Your task to perform on an android device: change notification settings in the gmail app Image 0: 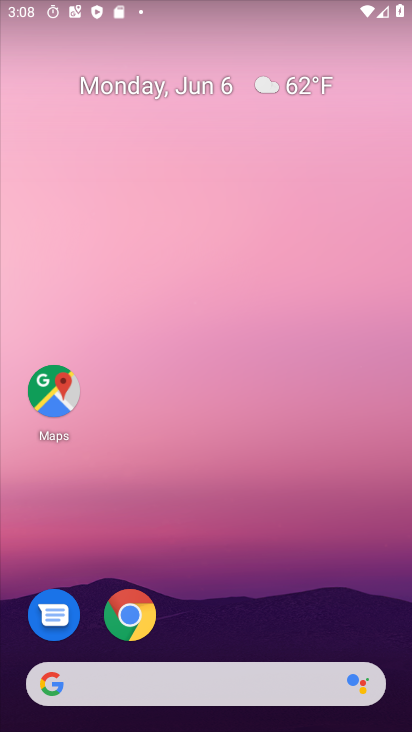
Step 0: drag from (255, 627) to (365, 114)
Your task to perform on an android device: change notification settings in the gmail app Image 1: 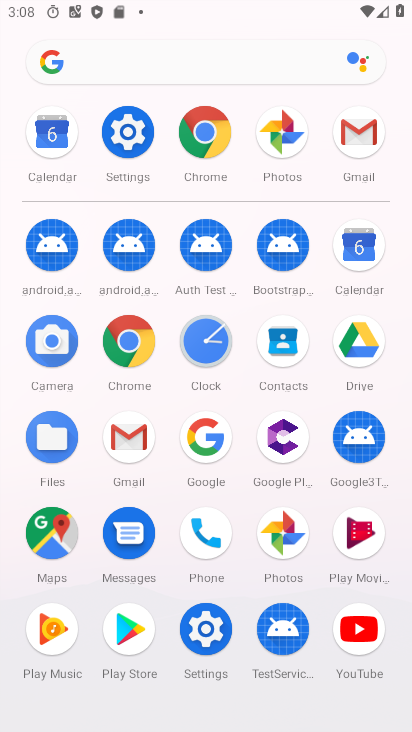
Step 1: click (134, 425)
Your task to perform on an android device: change notification settings in the gmail app Image 2: 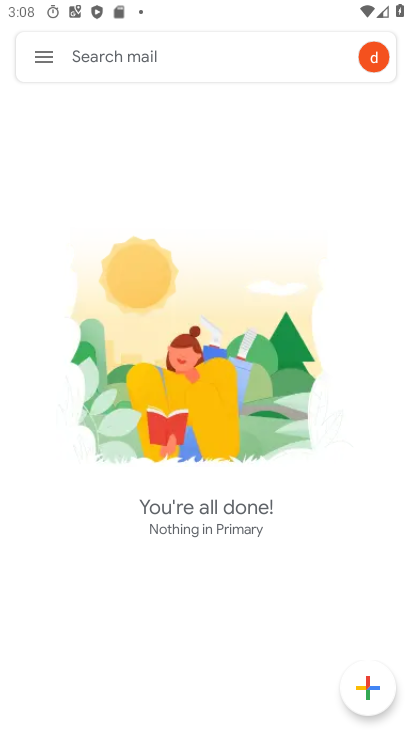
Step 2: click (56, 50)
Your task to perform on an android device: change notification settings in the gmail app Image 3: 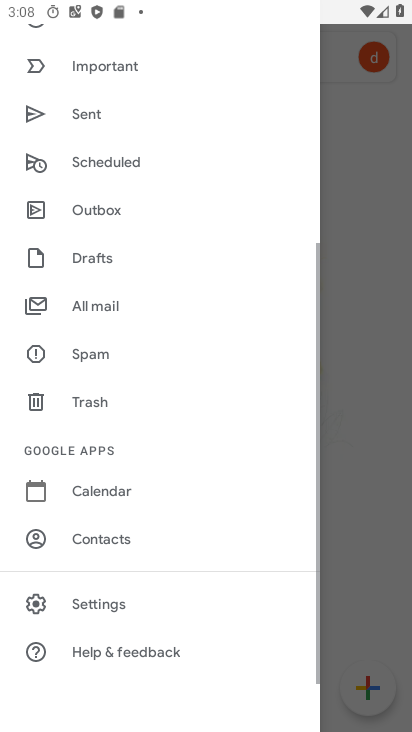
Step 3: click (142, 603)
Your task to perform on an android device: change notification settings in the gmail app Image 4: 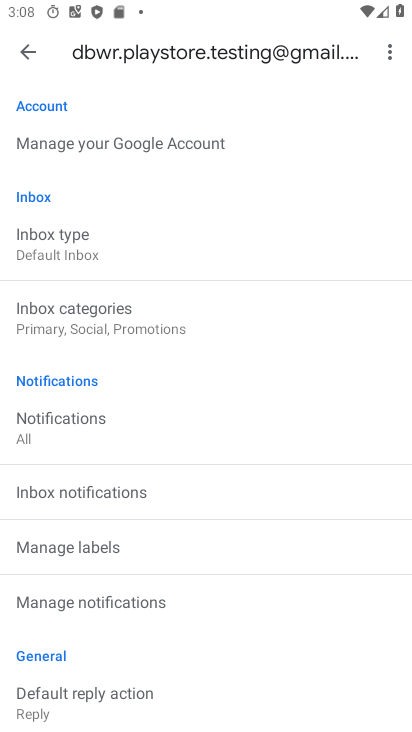
Step 4: click (135, 603)
Your task to perform on an android device: change notification settings in the gmail app Image 5: 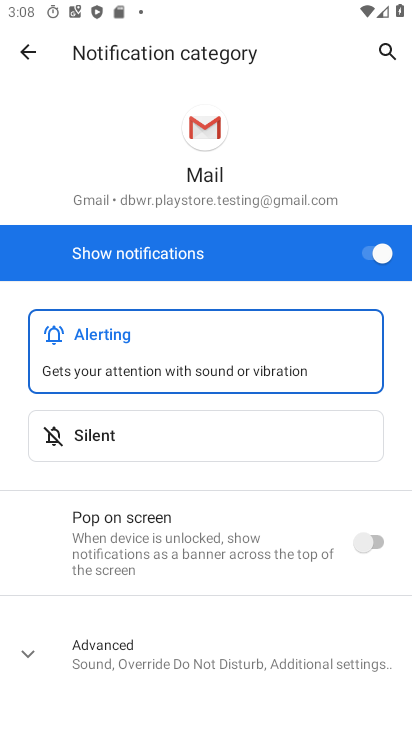
Step 5: click (385, 263)
Your task to perform on an android device: change notification settings in the gmail app Image 6: 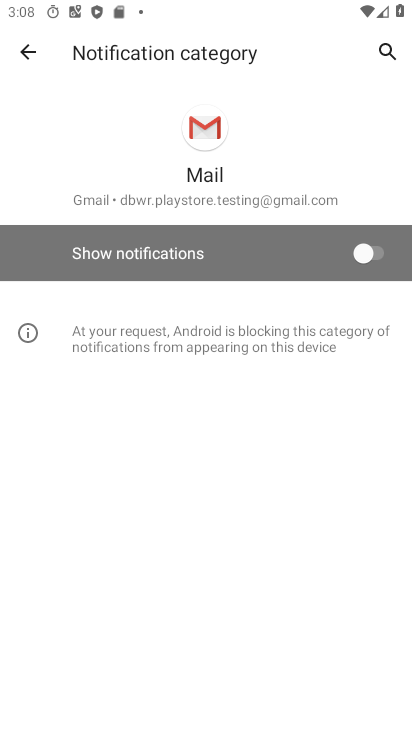
Step 6: task complete